Your task to perform on an android device: turn pop-ups off in chrome Image 0: 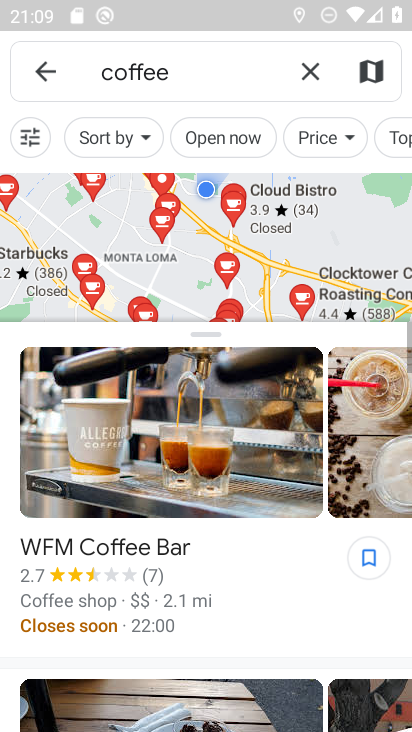
Step 0: press home button
Your task to perform on an android device: turn pop-ups off in chrome Image 1: 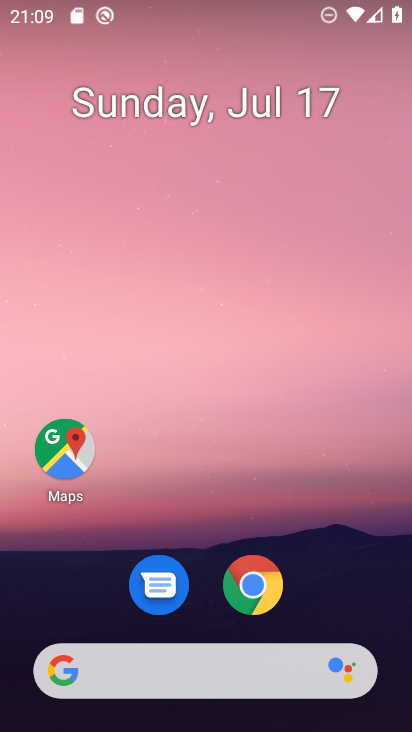
Step 1: click (245, 583)
Your task to perform on an android device: turn pop-ups off in chrome Image 2: 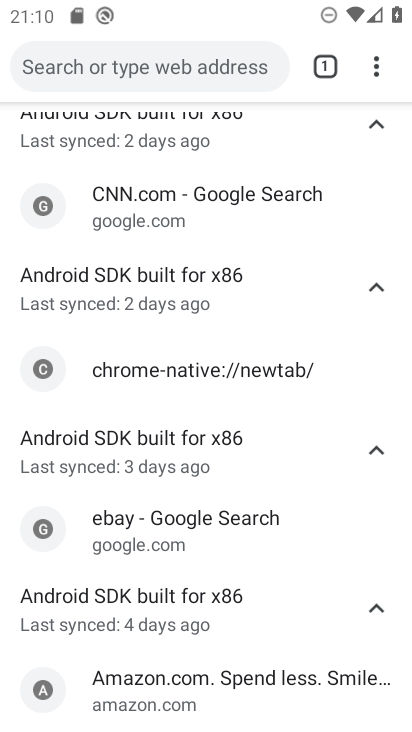
Step 2: drag from (374, 71) to (227, 568)
Your task to perform on an android device: turn pop-ups off in chrome Image 3: 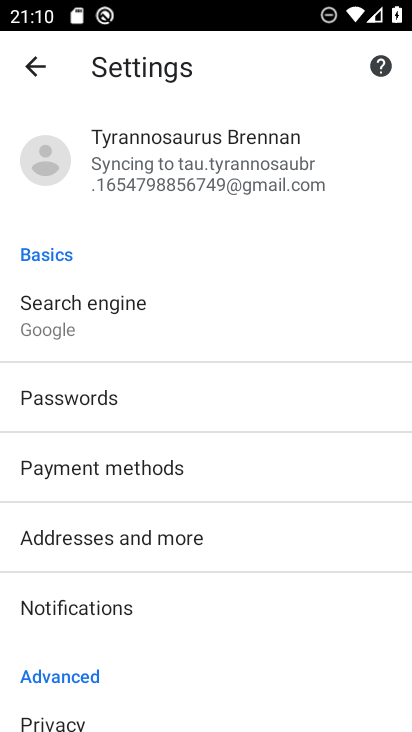
Step 3: drag from (196, 656) to (214, 310)
Your task to perform on an android device: turn pop-ups off in chrome Image 4: 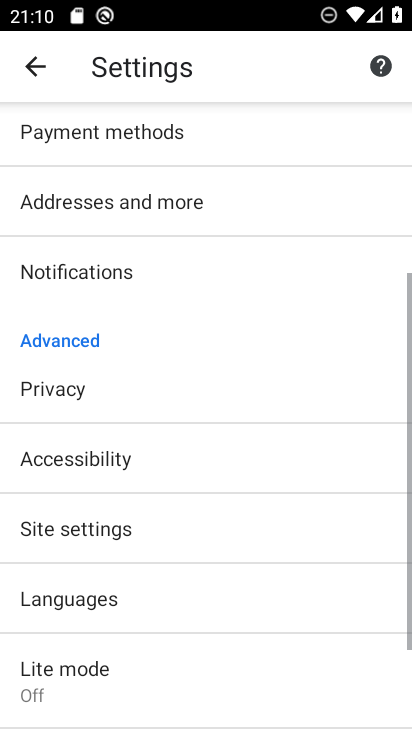
Step 4: click (96, 532)
Your task to perform on an android device: turn pop-ups off in chrome Image 5: 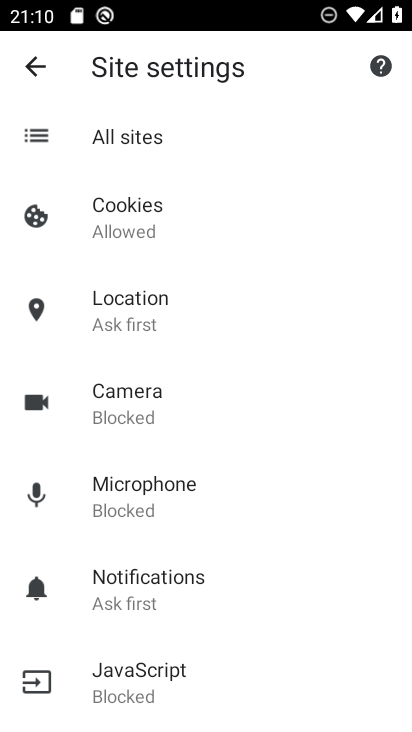
Step 5: drag from (215, 650) to (166, 229)
Your task to perform on an android device: turn pop-ups off in chrome Image 6: 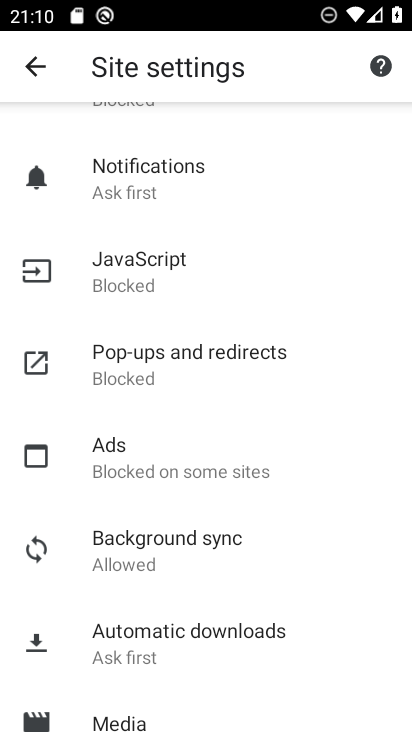
Step 6: click (124, 365)
Your task to perform on an android device: turn pop-ups off in chrome Image 7: 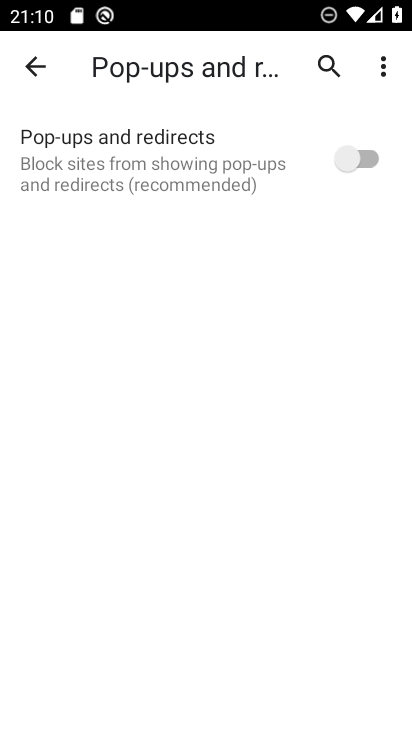
Step 7: task complete